Your task to perform on an android device: Open Google Image 0: 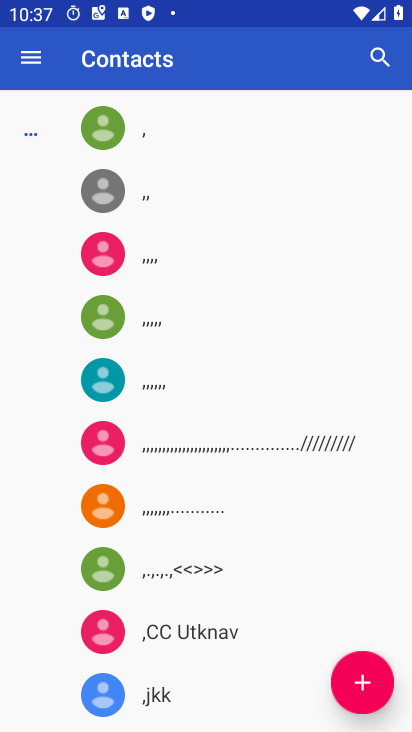
Step 0: press home button
Your task to perform on an android device: Open Google Image 1: 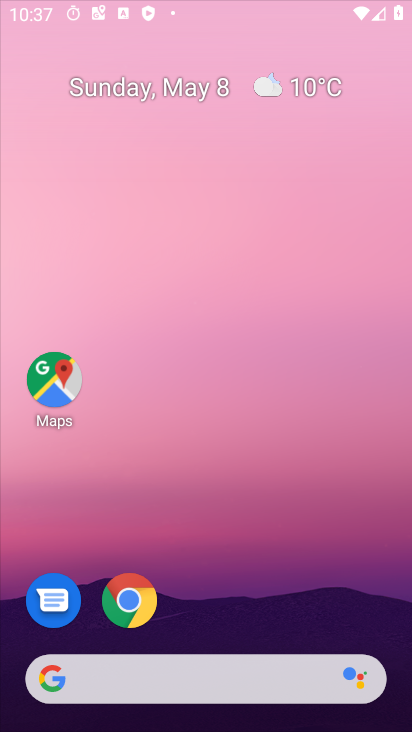
Step 1: drag from (210, 637) to (236, 143)
Your task to perform on an android device: Open Google Image 2: 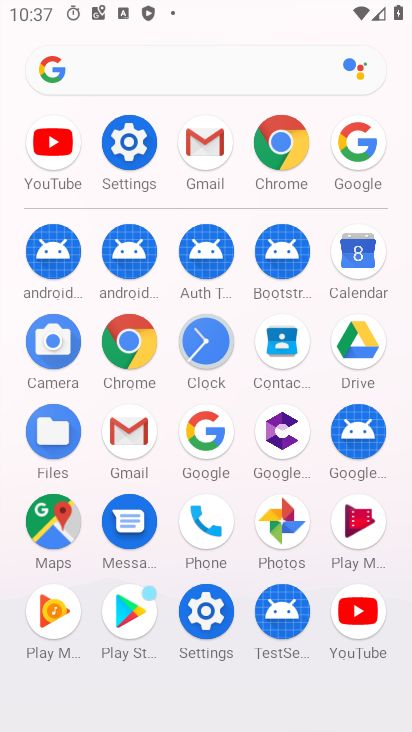
Step 2: click (207, 441)
Your task to perform on an android device: Open Google Image 3: 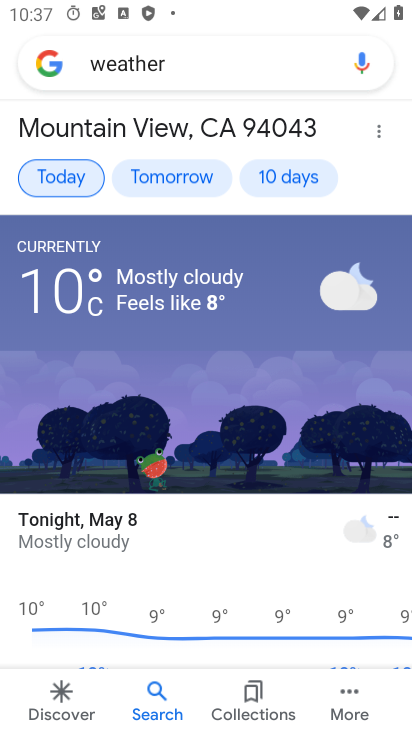
Step 3: task complete